Your task to perform on an android device: Go to Android settings Image 0: 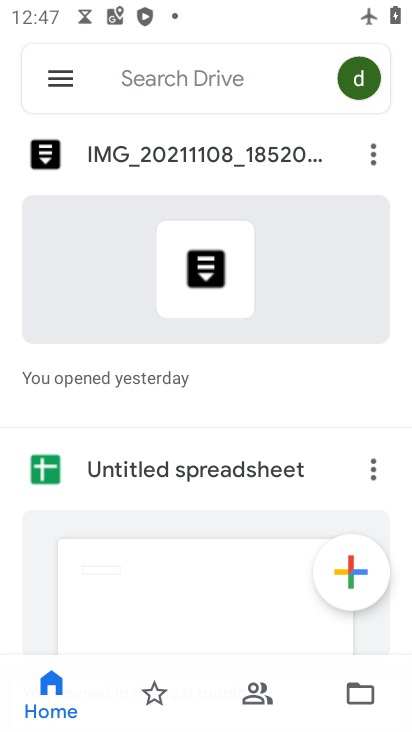
Step 0: click (332, 603)
Your task to perform on an android device: Go to Android settings Image 1: 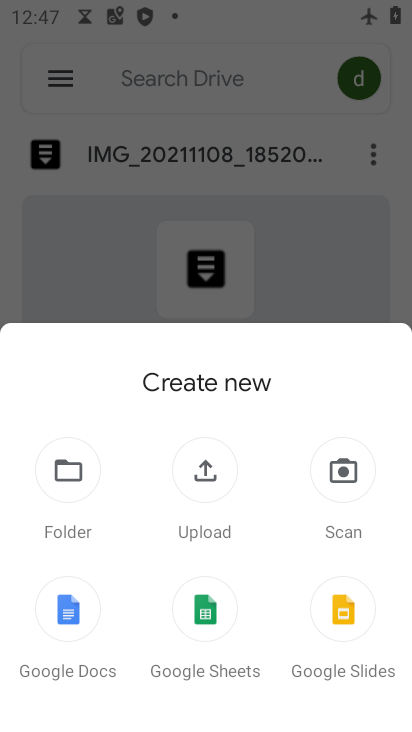
Step 1: press home button
Your task to perform on an android device: Go to Android settings Image 2: 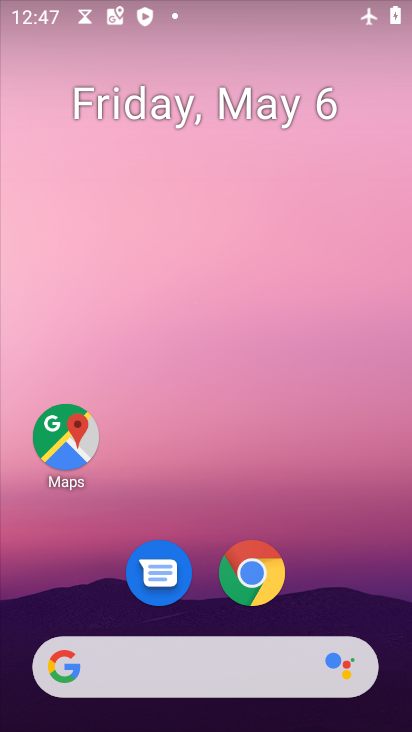
Step 2: drag from (328, 579) to (322, 214)
Your task to perform on an android device: Go to Android settings Image 3: 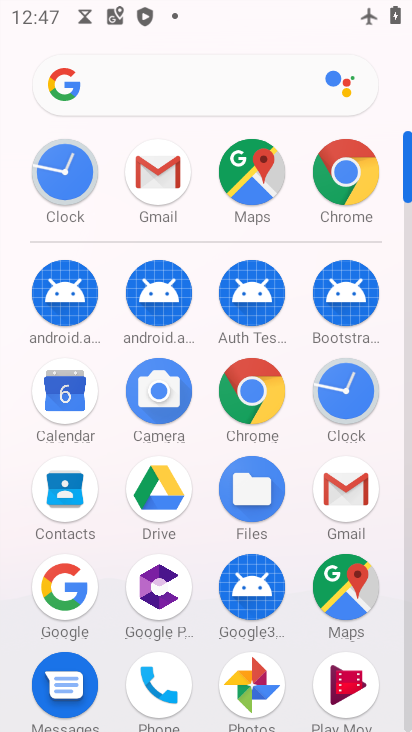
Step 3: drag from (182, 624) to (258, 159)
Your task to perform on an android device: Go to Android settings Image 4: 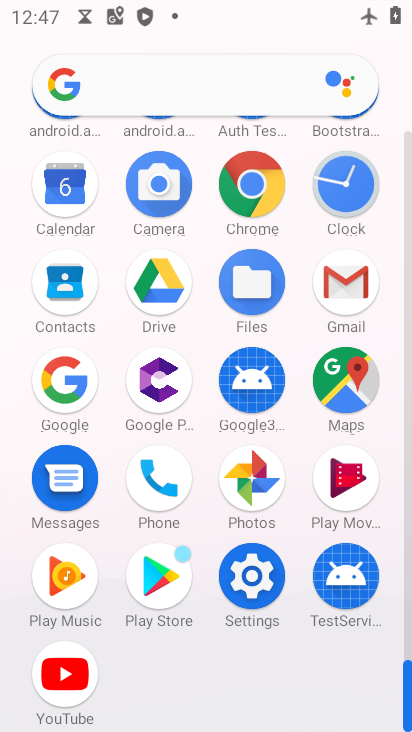
Step 4: click (254, 544)
Your task to perform on an android device: Go to Android settings Image 5: 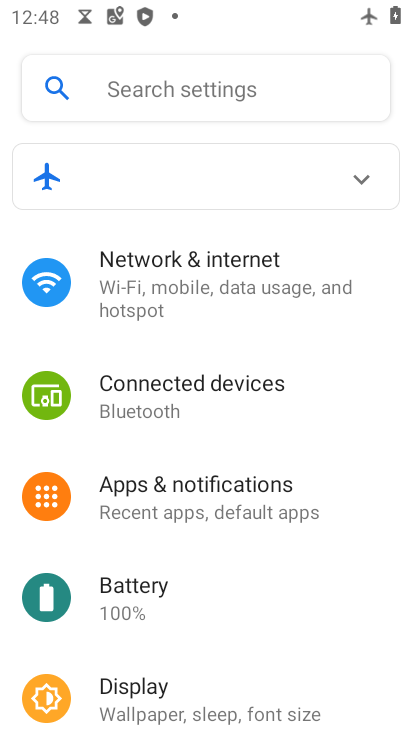
Step 5: drag from (244, 632) to (267, 215)
Your task to perform on an android device: Go to Android settings Image 6: 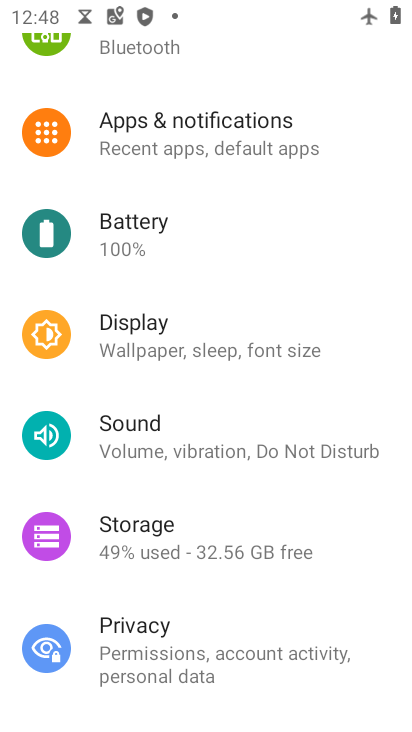
Step 6: drag from (220, 684) to (274, 176)
Your task to perform on an android device: Go to Android settings Image 7: 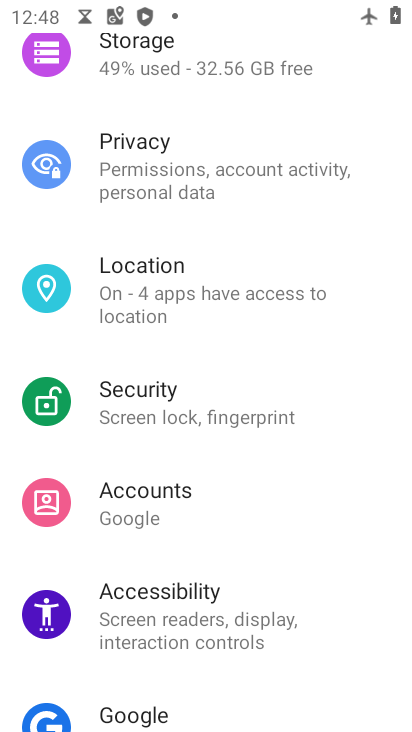
Step 7: drag from (235, 648) to (276, 149)
Your task to perform on an android device: Go to Android settings Image 8: 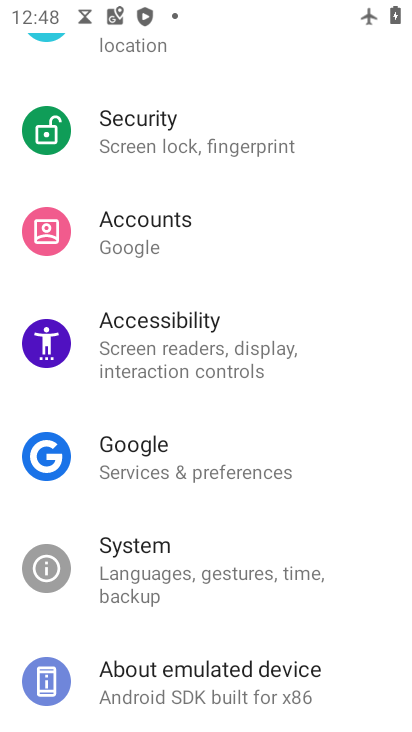
Step 8: click (182, 684)
Your task to perform on an android device: Go to Android settings Image 9: 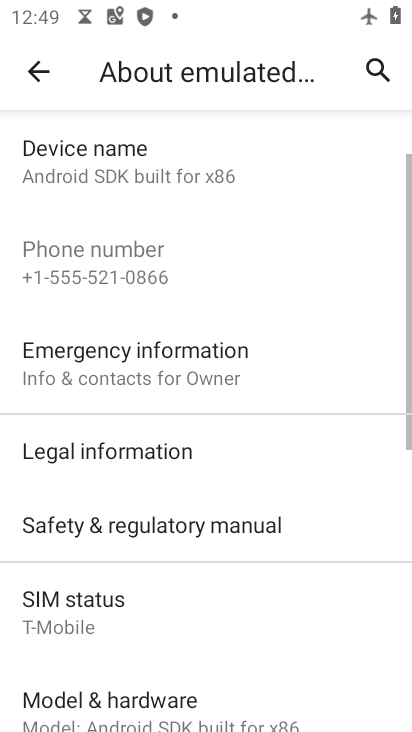
Step 9: task complete